Your task to perform on an android device: Search for Italian restaurants on Maps Image 0: 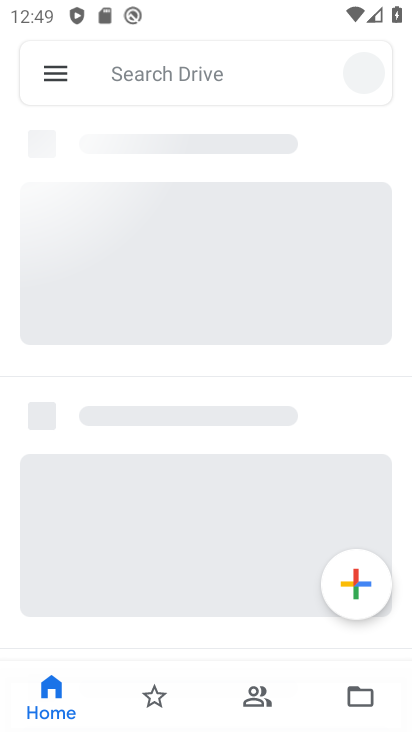
Step 0: press home button
Your task to perform on an android device: Search for Italian restaurants on Maps Image 1: 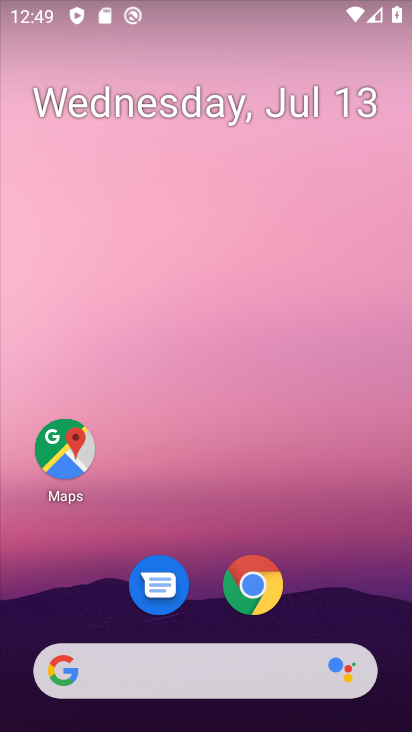
Step 1: click (72, 441)
Your task to perform on an android device: Search for Italian restaurants on Maps Image 2: 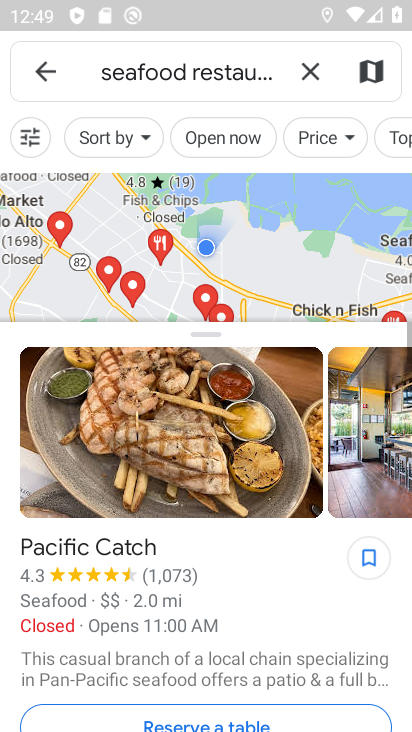
Step 2: click (312, 57)
Your task to perform on an android device: Search for Italian restaurants on Maps Image 3: 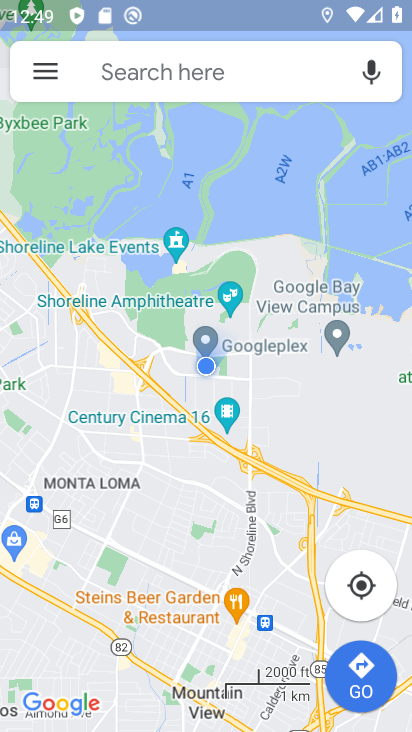
Step 3: click (224, 77)
Your task to perform on an android device: Search for Italian restaurants on Maps Image 4: 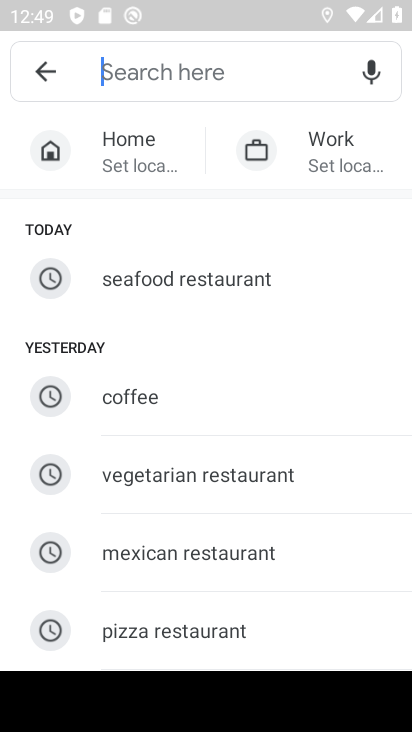
Step 4: drag from (191, 507) to (232, 184)
Your task to perform on an android device: Search for Italian restaurants on Maps Image 5: 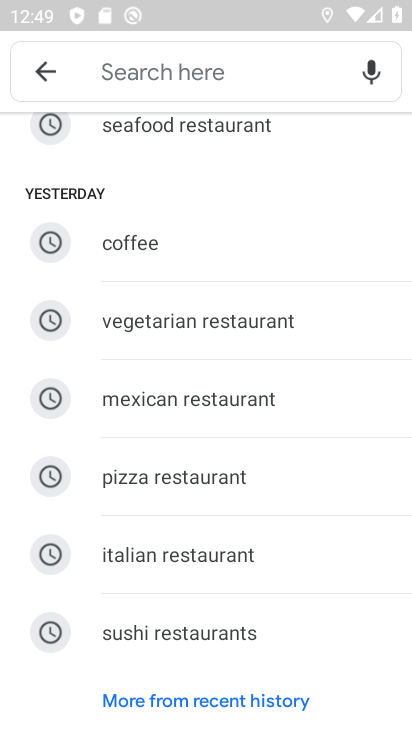
Step 5: click (203, 545)
Your task to perform on an android device: Search for Italian restaurants on Maps Image 6: 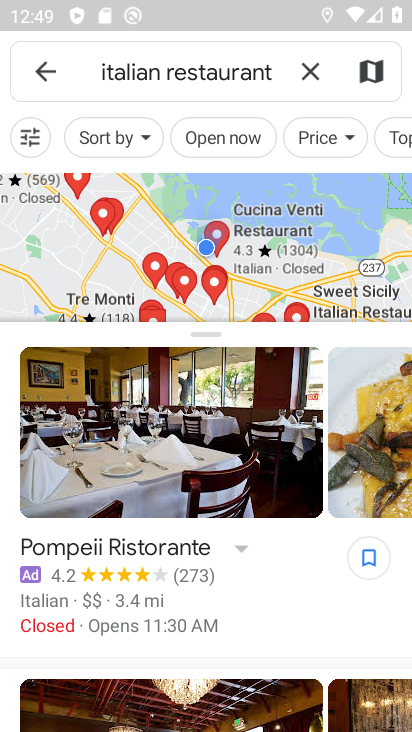
Step 6: task complete